Your task to perform on an android device: turn off javascript in the chrome app Image 0: 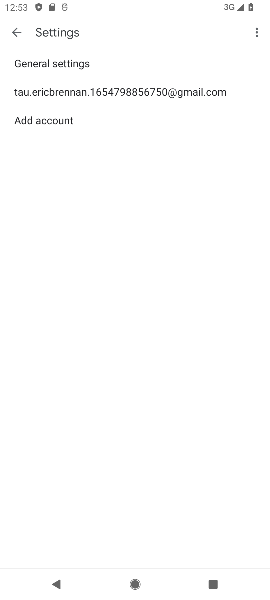
Step 0: press home button
Your task to perform on an android device: turn off javascript in the chrome app Image 1: 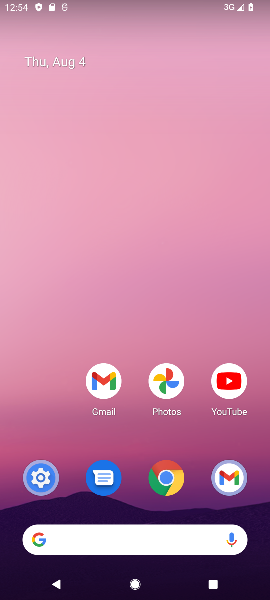
Step 1: click (164, 480)
Your task to perform on an android device: turn off javascript in the chrome app Image 2: 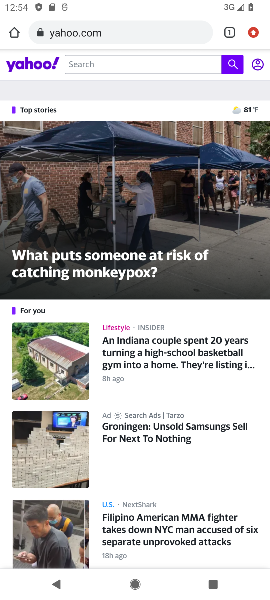
Step 2: drag from (253, 31) to (130, 439)
Your task to perform on an android device: turn off javascript in the chrome app Image 3: 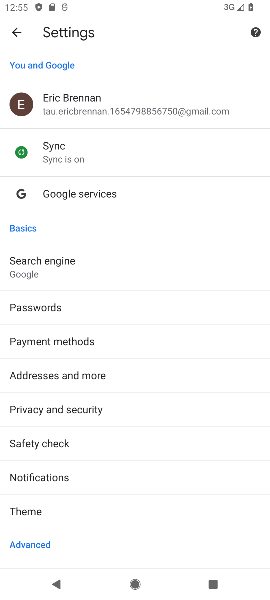
Step 3: drag from (93, 448) to (112, 272)
Your task to perform on an android device: turn off javascript in the chrome app Image 4: 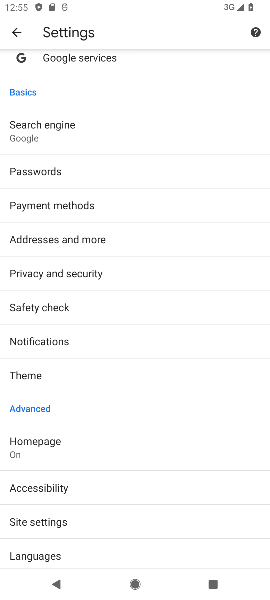
Step 4: drag from (74, 441) to (11, 165)
Your task to perform on an android device: turn off javascript in the chrome app Image 5: 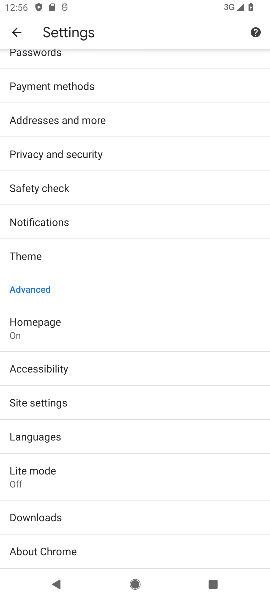
Step 5: click (69, 405)
Your task to perform on an android device: turn off javascript in the chrome app Image 6: 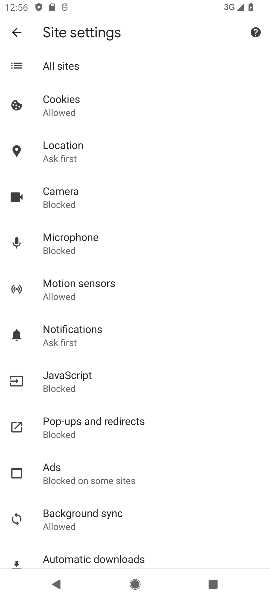
Step 6: click (69, 382)
Your task to perform on an android device: turn off javascript in the chrome app Image 7: 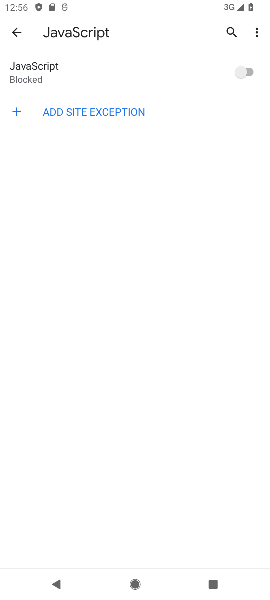
Step 7: task complete